Your task to perform on an android device: turn off improve location accuracy Image 0: 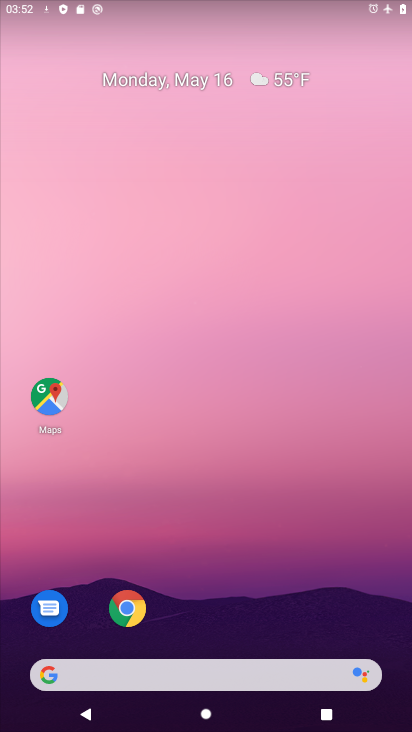
Step 0: drag from (203, 630) to (208, 243)
Your task to perform on an android device: turn off improve location accuracy Image 1: 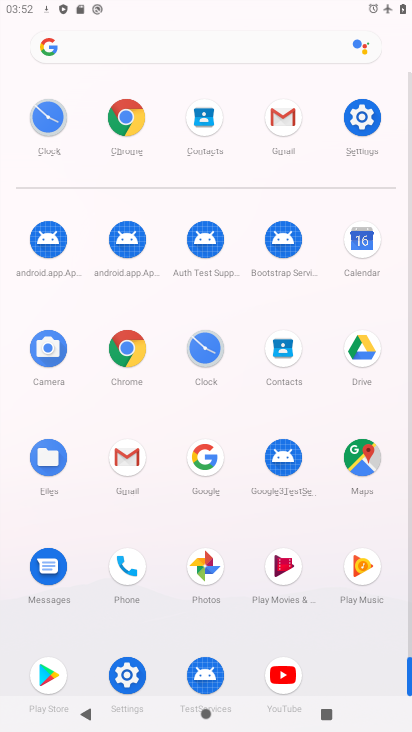
Step 1: click (371, 124)
Your task to perform on an android device: turn off improve location accuracy Image 2: 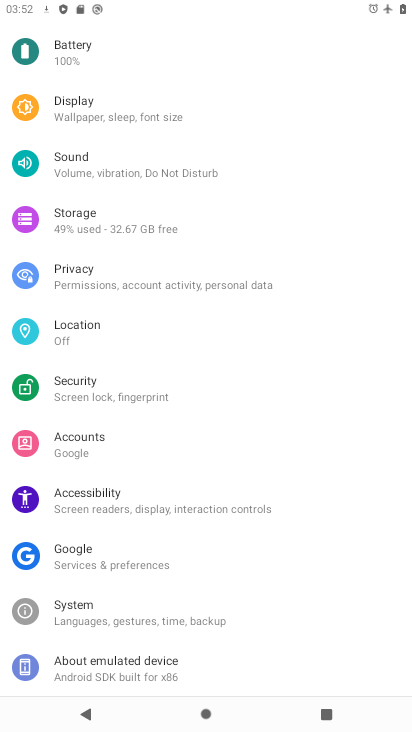
Step 2: click (103, 336)
Your task to perform on an android device: turn off improve location accuracy Image 3: 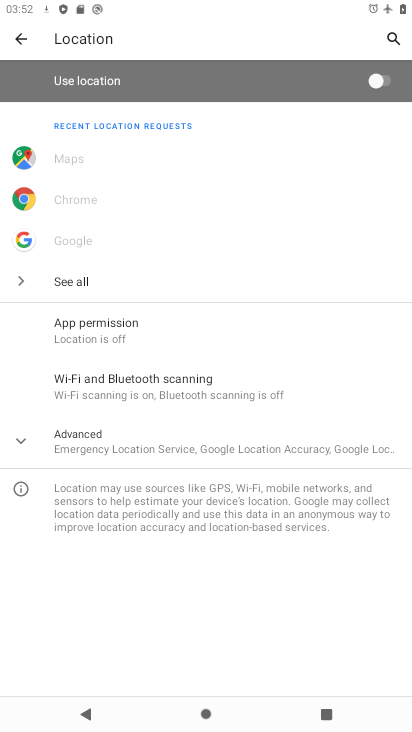
Step 3: click (165, 437)
Your task to perform on an android device: turn off improve location accuracy Image 4: 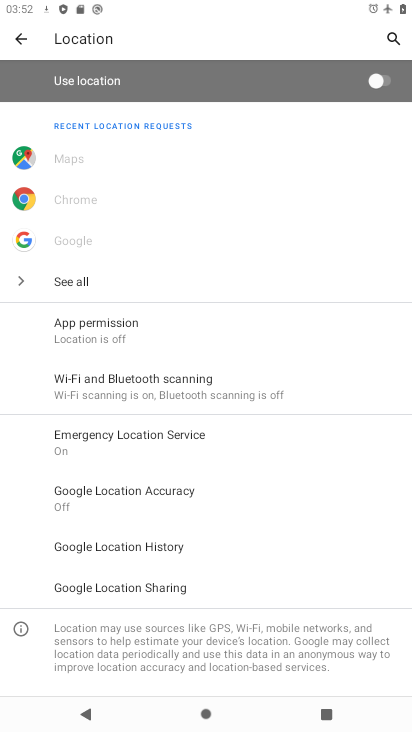
Step 4: drag from (191, 528) to (241, 399)
Your task to perform on an android device: turn off improve location accuracy Image 5: 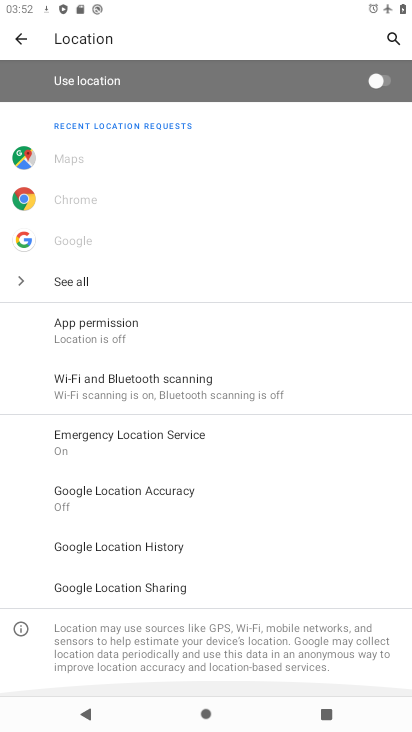
Step 5: click (187, 478)
Your task to perform on an android device: turn off improve location accuracy Image 6: 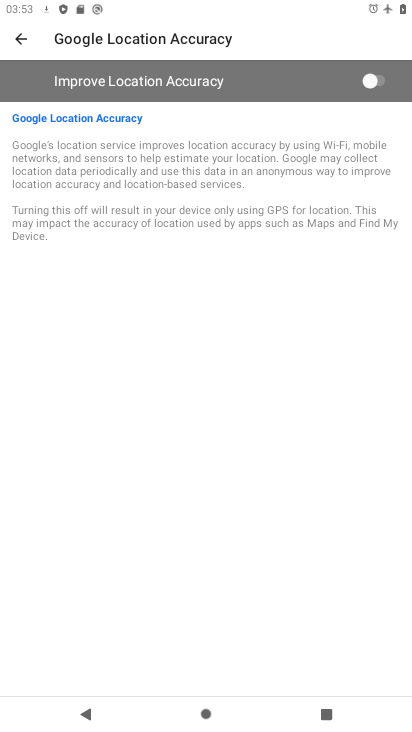
Step 6: task complete